Your task to perform on an android device: change the clock style Image 0: 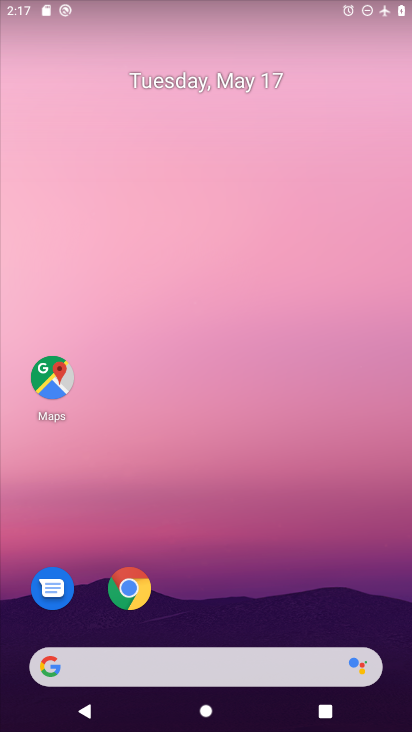
Step 0: drag from (164, 584) to (58, 97)
Your task to perform on an android device: change the clock style Image 1: 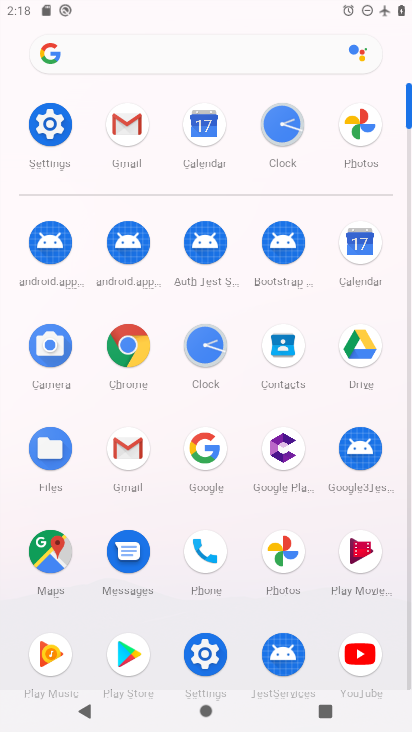
Step 1: click (281, 122)
Your task to perform on an android device: change the clock style Image 2: 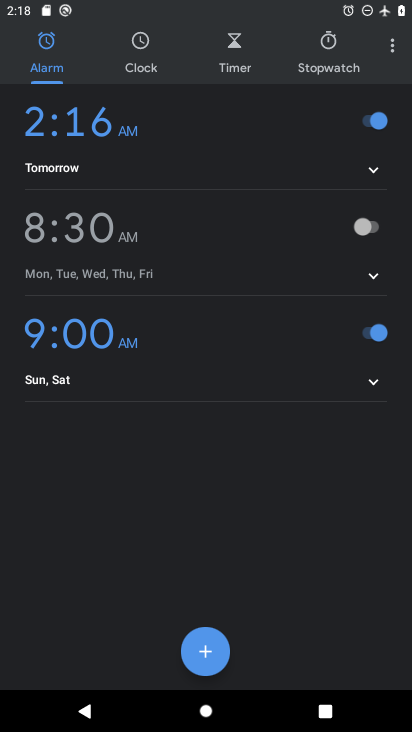
Step 2: click (394, 40)
Your task to perform on an android device: change the clock style Image 3: 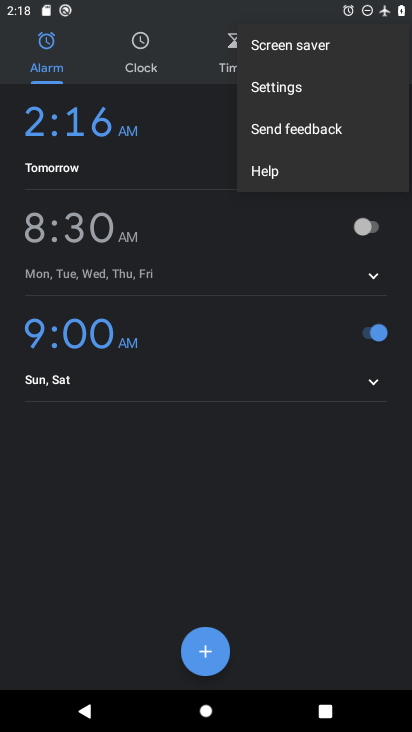
Step 3: click (284, 87)
Your task to perform on an android device: change the clock style Image 4: 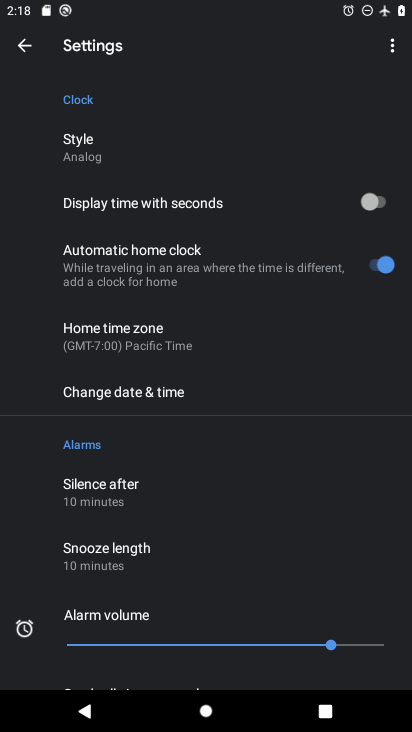
Step 4: click (72, 148)
Your task to perform on an android device: change the clock style Image 5: 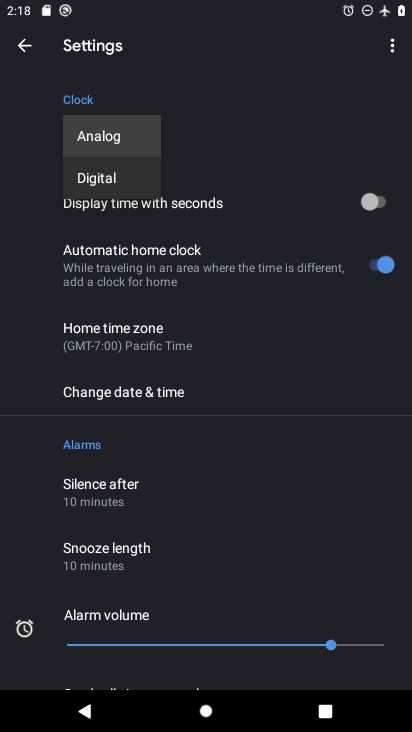
Step 5: click (101, 184)
Your task to perform on an android device: change the clock style Image 6: 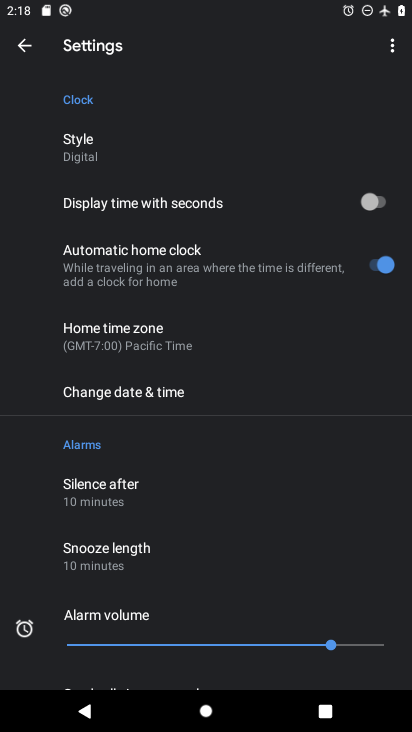
Step 6: task complete